Your task to perform on an android device: Do I have any events this weekend? Image 0: 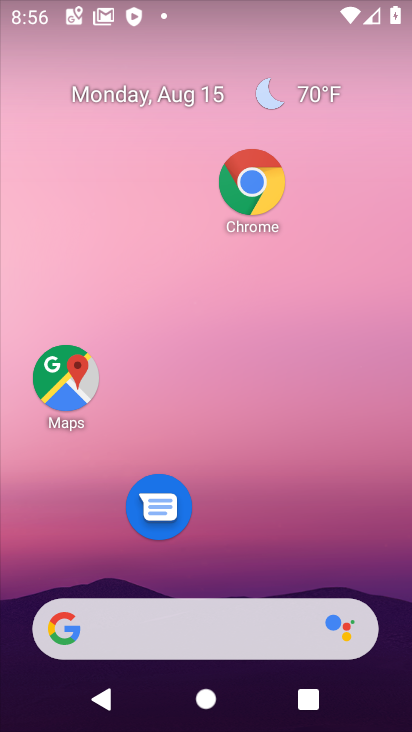
Step 0: task complete